Your task to perform on an android device: check out phone information Image 0: 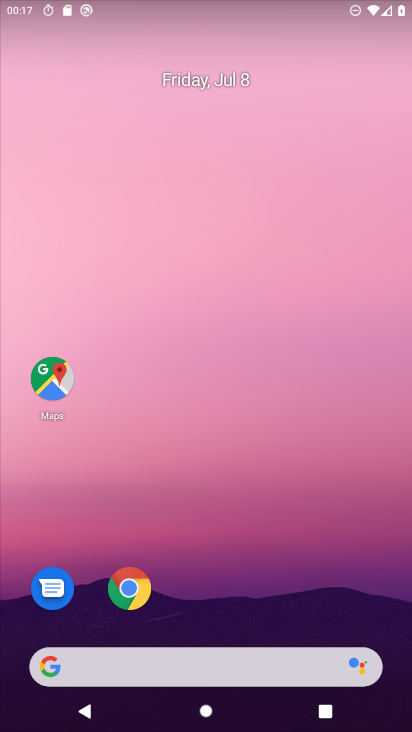
Step 0: drag from (281, 486) to (243, 0)
Your task to perform on an android device: check out phone information Image 1: 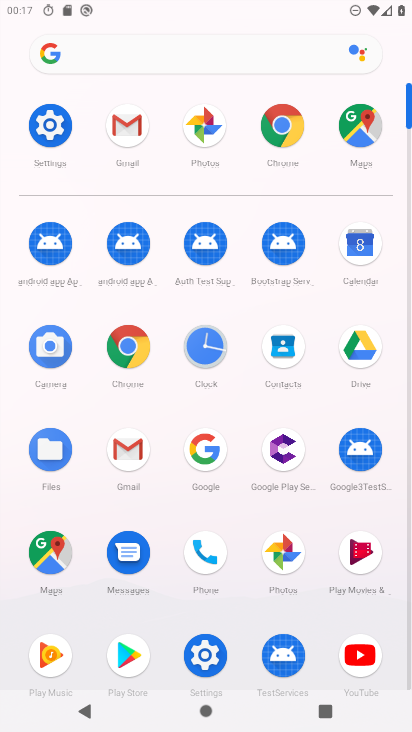
Step 1: click (208, 559)
Your task to perform on an android device: check out phone information Image 2: 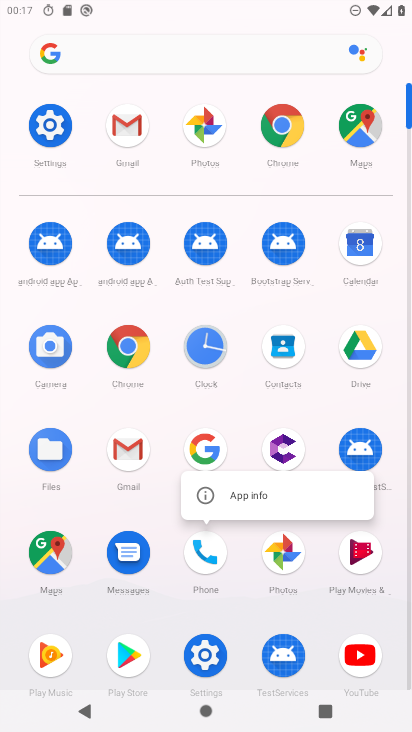
Step 2: click (239, 504)
Your task to perform on an android device: check out phone information Image 3: 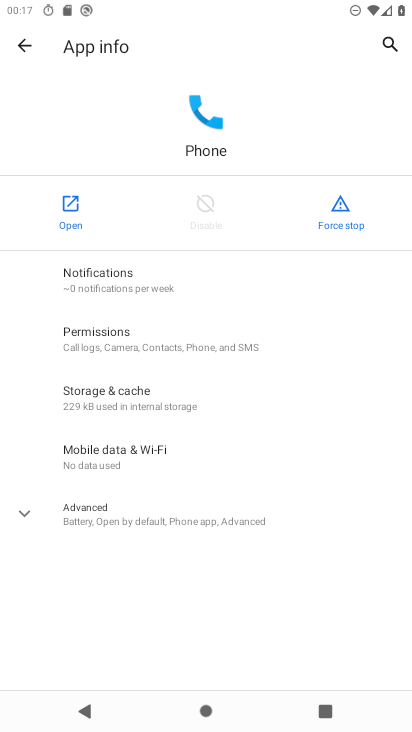
Step 3: task complete